Your task to perform on an android device: clear all cookies in the chrome app Image 0: 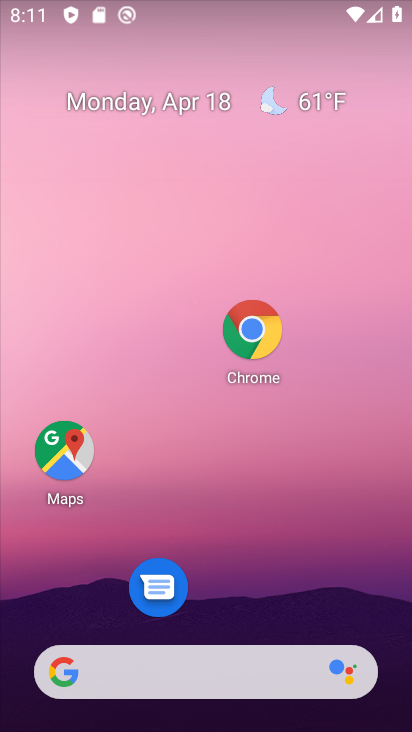
Step 0: drag from (311, 577) to (317, 211)
Your task to perform on an android device: clear all cookies in the chrome app Image 1: 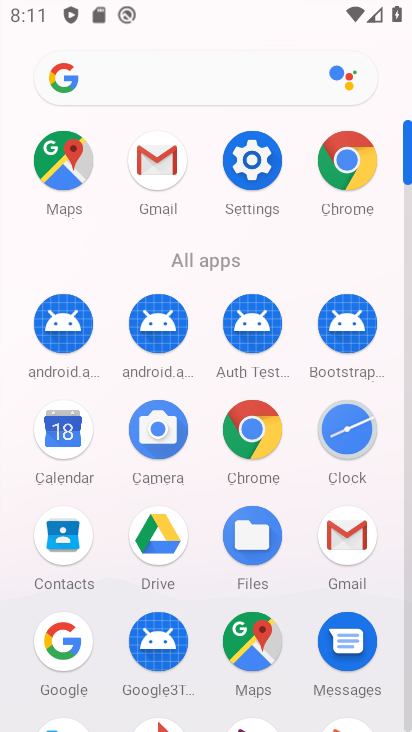
Step 1: click (343, 155)
Your task to perform on an android device: clear all cookies in the chrome app Image 2: 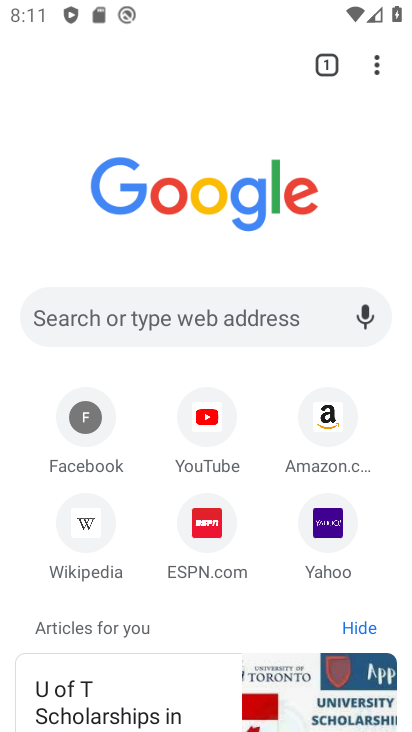
Step 2: click (378, 62)
Your task to perform on an android device: clear all cookies in the chrome app Image 3: 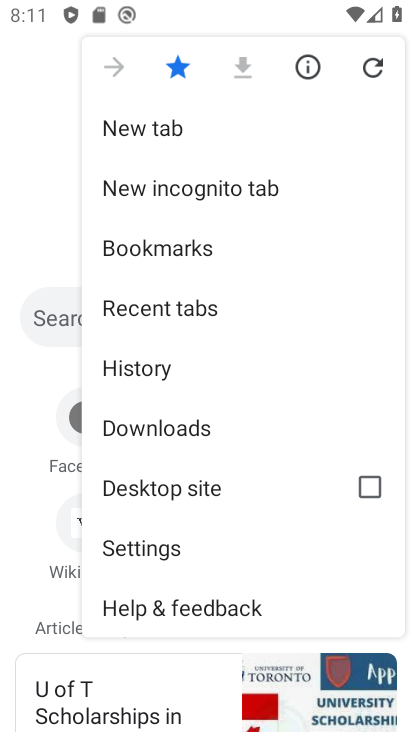
Step 3: click (159, 551)
Your task to perform on an android device: clear all cookies in the chrome app Image 4: 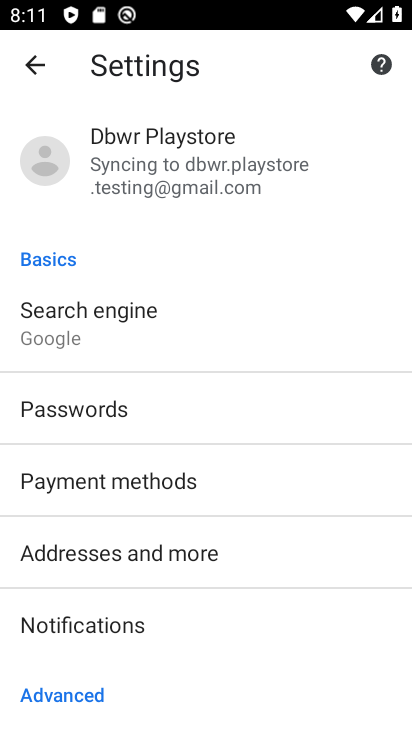
Step 4: drag from (191, 610) to (220, 202)
Your task to perform on an android device: clear all cookies in the chrome app Image 5: 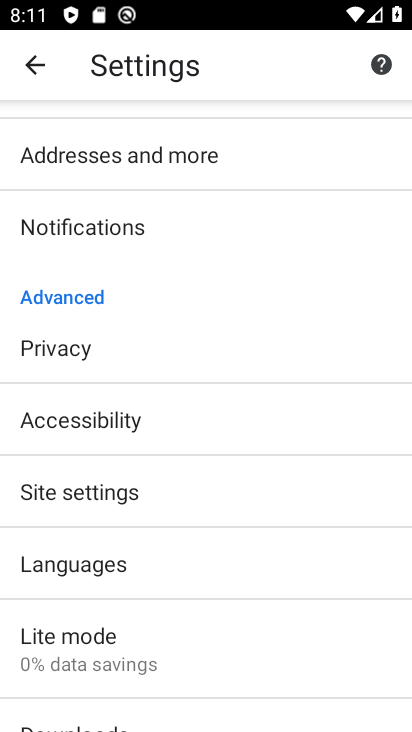
Step 5: click (125, 346)
Your task to perform on an android device: clear all cookies in the chrome app Image 6: 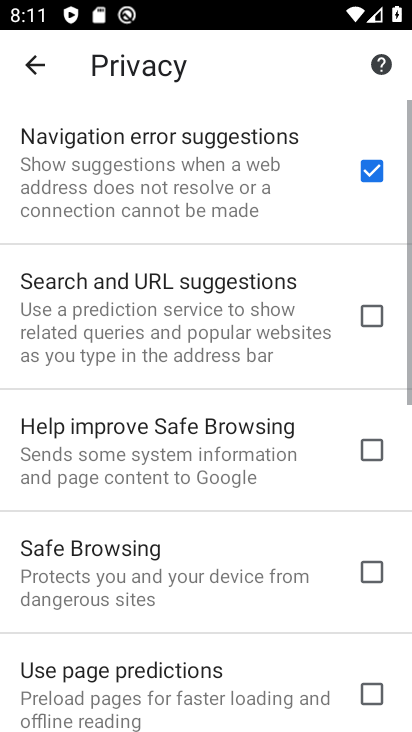
Step 6: drag from (182, 609) to (253, 107)
Your task to perform on an android device: clear all cookies in the chrome app Image 7: 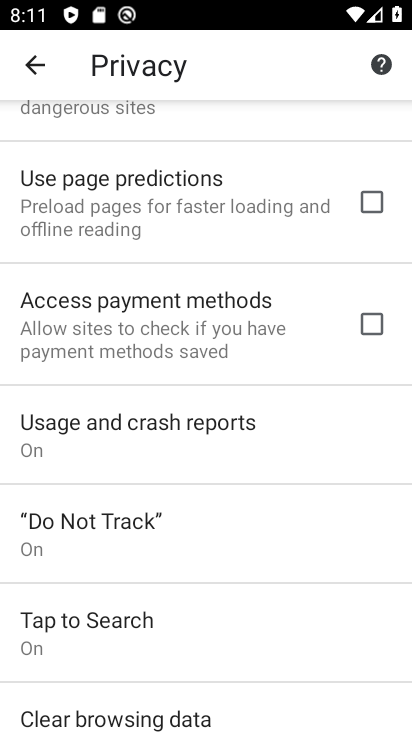
Step 7: drag from (171, 642) to (246, 254)
Your task to perform on an android device: clear all cookies in the chrome app Image 8: 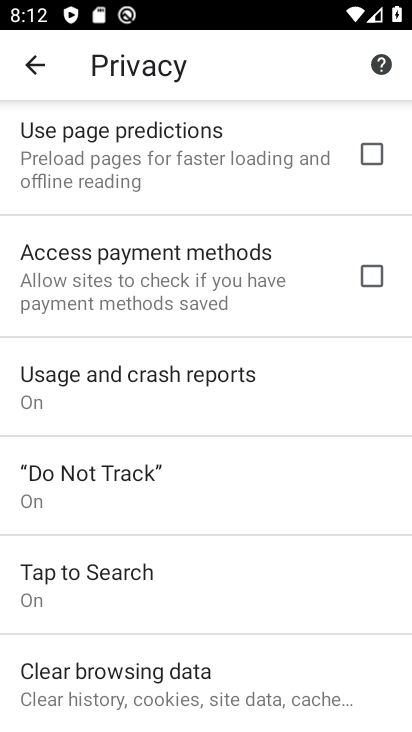
Step 8: drag from (180, 659) to (254, 355)
Your task to perform on an android device: clear all cookies in the chrome app Image 9: 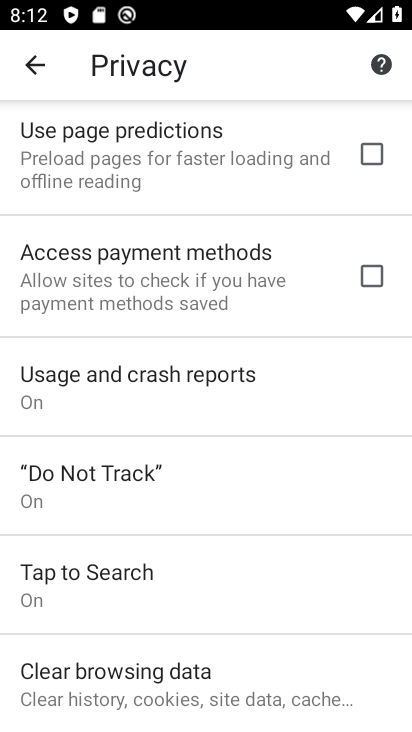
Step 9: click (153, 674)
Your task to perform on an android device: clear all cookies in the chrome app Image 10: 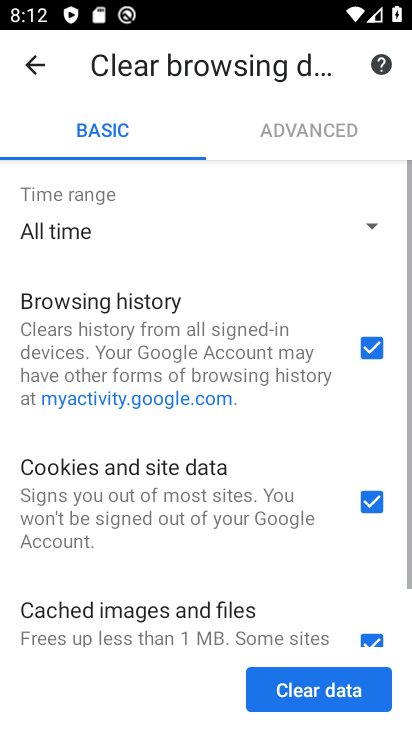
Step 10: drag from (145, 577) to (151, 540)
Your task to perform on an android device: clear all cookies in the chrome app Image 11: 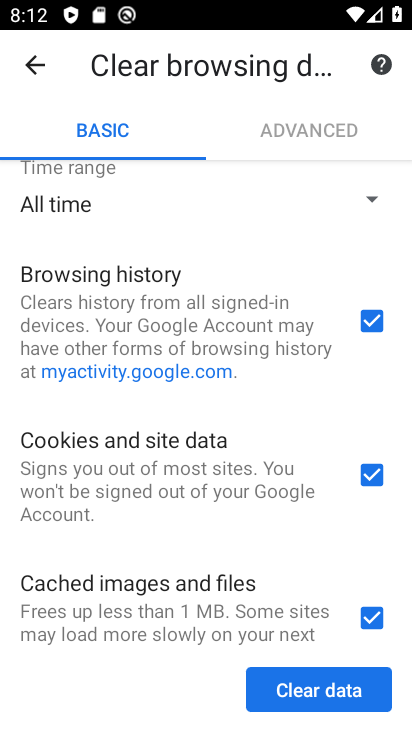
Step 11: click (365, 324)
Your task to perform on an android device: clear all cookies in the chrome app Image 12: 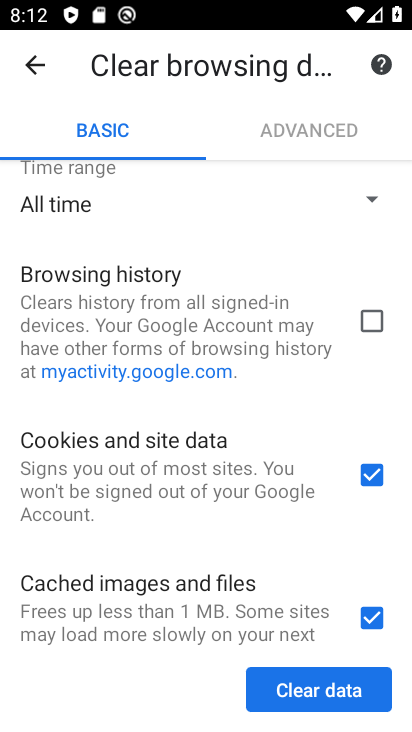
Step 12: click (322, 685)
Your task to perform on an android device: clear all cookies in the chrome app Image 13: 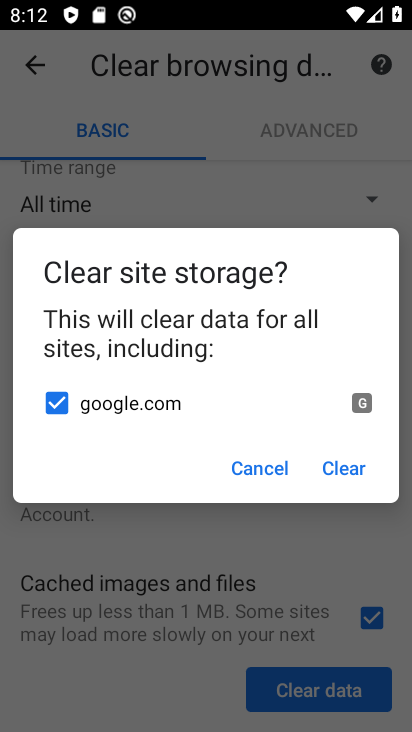
Step 13: click (340, 470)
Your task to perform on an android device: clear all cookies in the chrome app Image 14: 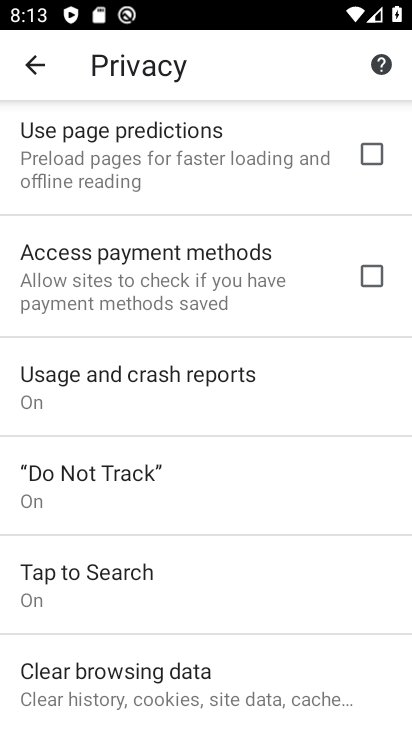
Step 14: task complete